Your task to perform on an android device: open the mobile data screen to see how much data has been used Image 0: 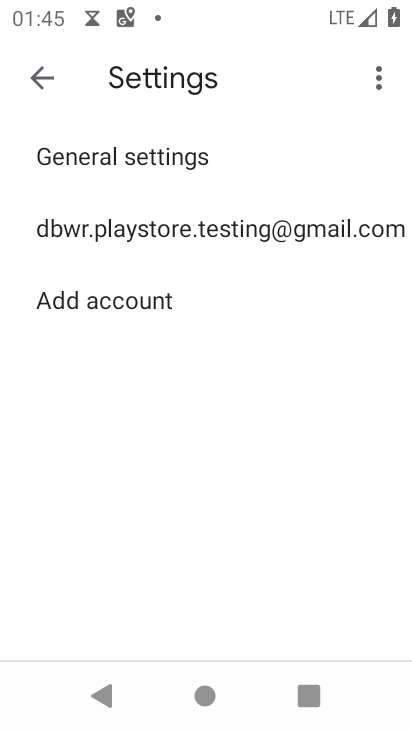
Step 0: press home button
Your task to perform on an android device: open the mobile data screen to see how much data has been used Image 1: 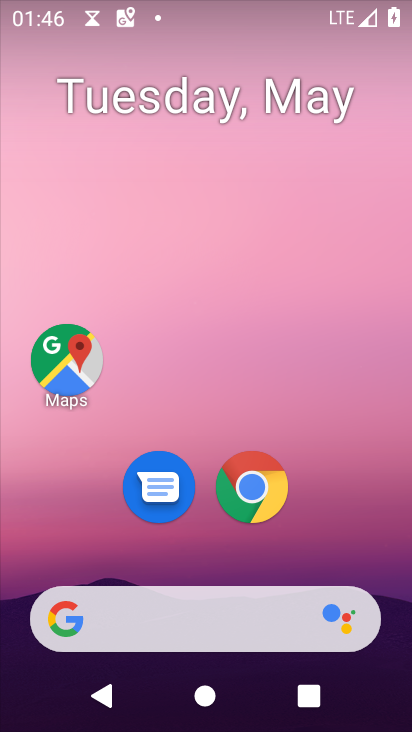
Step 1: drag from (301, 547) to (242, 273)
Your task to perform on an android device: open the mobile data screen to see how much data has been used Image 2: 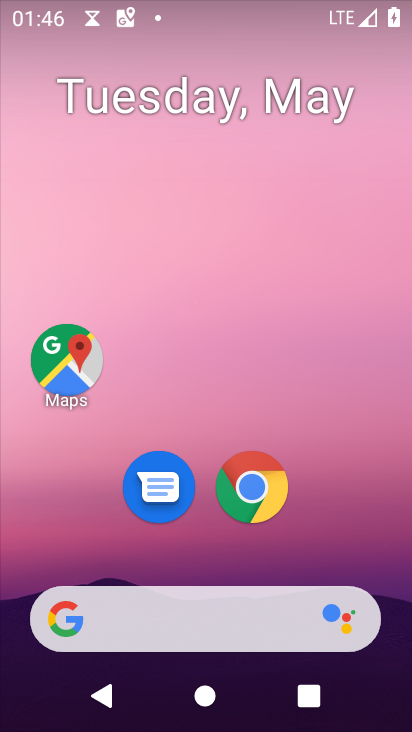
Step 2: drag from (369, 537) to (358, 109)
Your task to perform on an android device: open the mobile data screen to see how much data has been used Image 3: 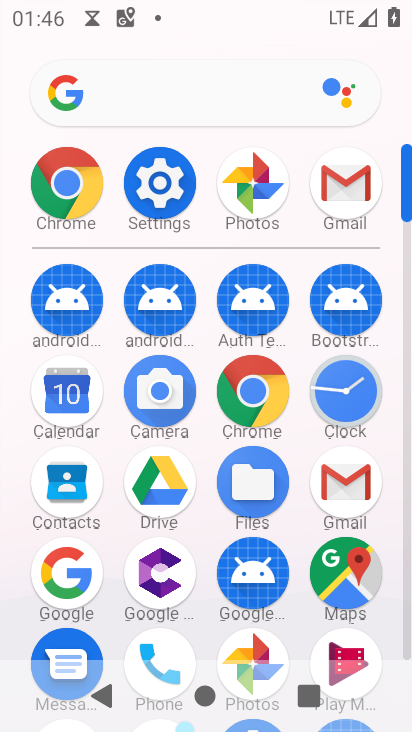
Step 3: click (162, 185)
Your task to perform on an android device: open the mobile data screen to see how much data has been used Image 4: 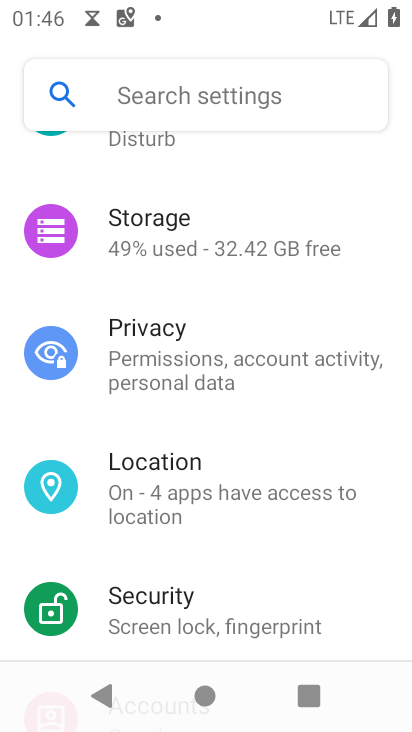
Step 4: drag from (188, 209) to (177, 695)
Your task to perform on an android device: open the mobile data screen to see how much data has been used Image 5: 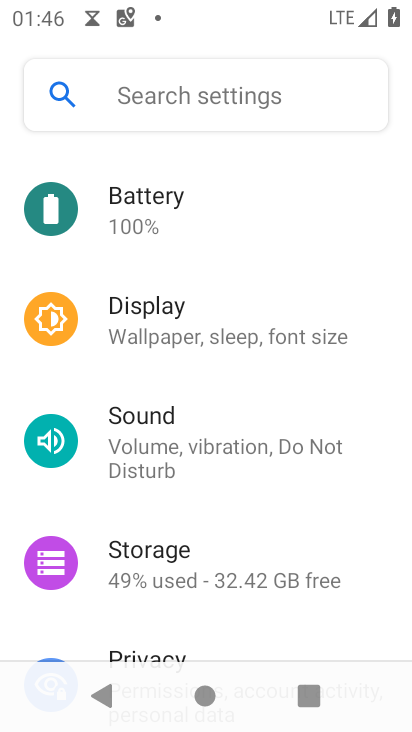
Step 5: drag from (113, 534) to (217, 260)
Your task to perform on an android device: open the mobile data screen to see how much data has been used Image 6: 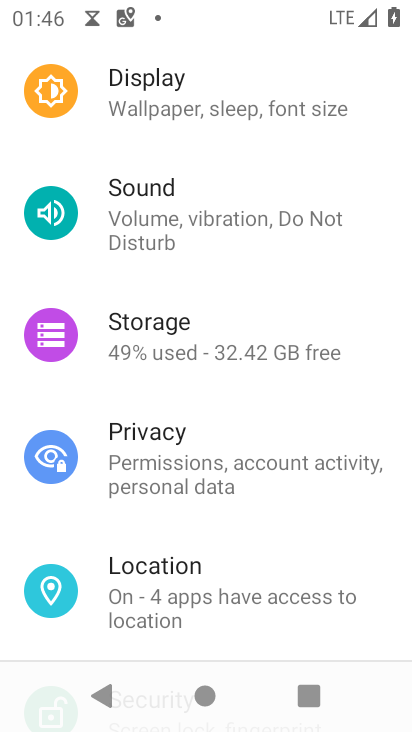
Step 6: drag from (279, 232) to (296, 475)
Your task to perform on an android device: open the mobile data screen to see how much data has been used Image 7: 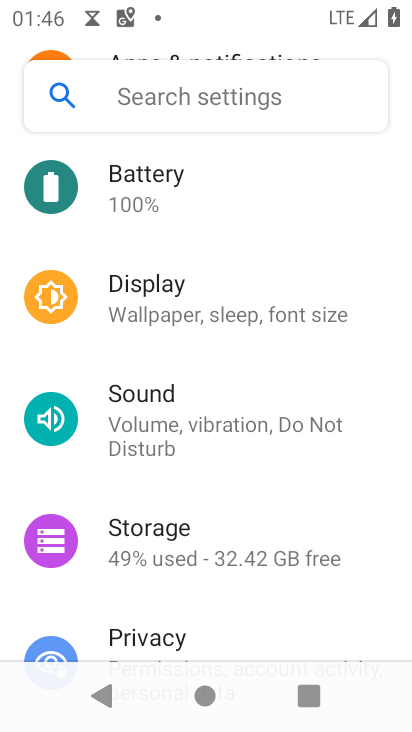
Step 7: drag from (298, 231) to (305, 448)
Your task to perform on an android device: open the mobile data screen to see how much data has been used Image 8: 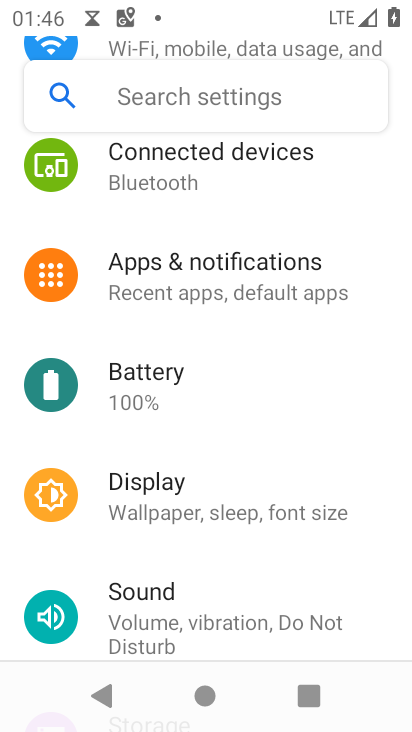
Step 8: drag from (287, 258) to (304, 539)
Your task to perform on an android device: open the mobile data screen to see how much data has been used Image 9: 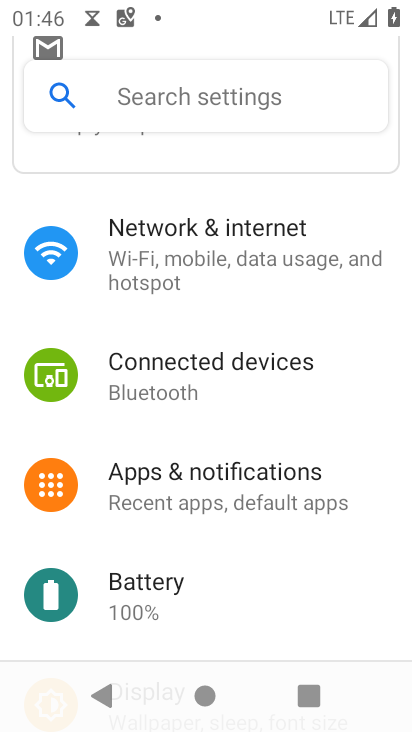
Step 9: click (289, 257)
Your task to perform on an android device: open the mobile data screen to see how much data has been used Image 10: 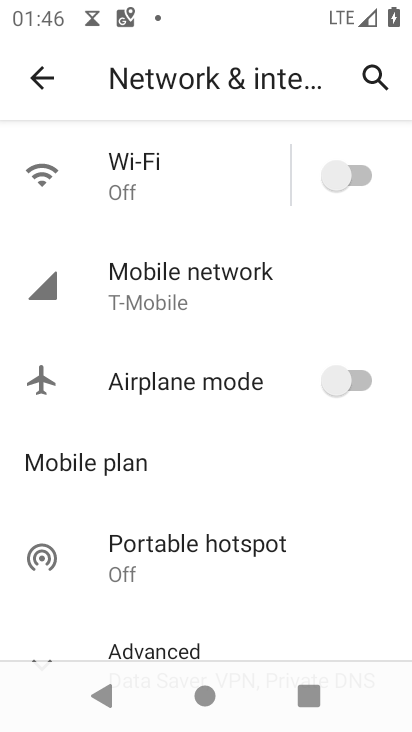
Step 10: click (199, 247)
Your task to perform on an android device: open the mobile data screen to see how much data has been used Image 11: 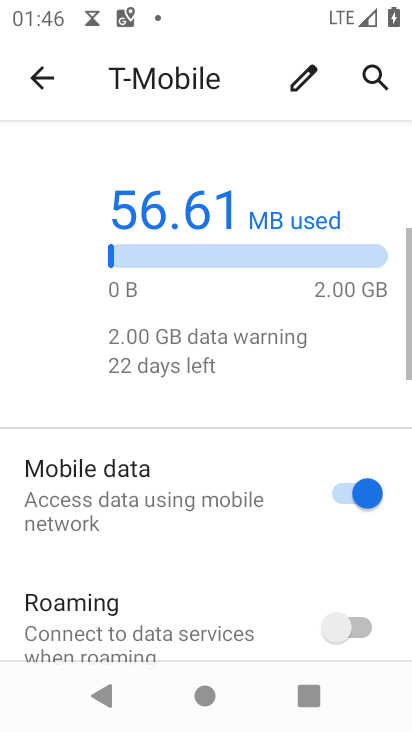
Step 11: task complete